Your task to perform on an android device: set an alarm Image 0: 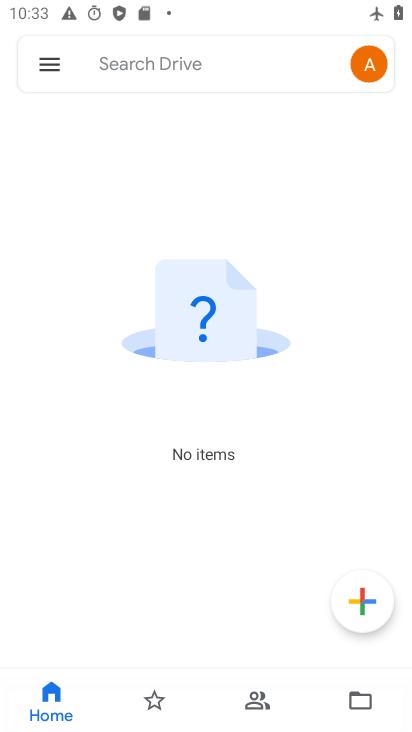
Step 0: press home button
Your task to perform on an android device: set an alarm Image 1: 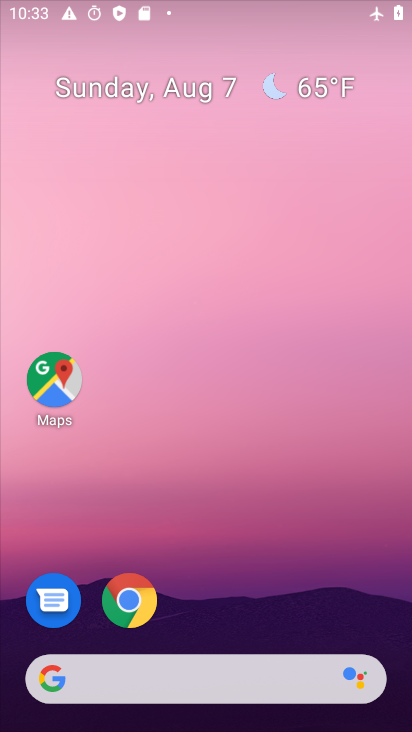
Step 1: drag from (225, 441) to (232, 23)
Your task to perform on an android device: set an alarm Image 2: 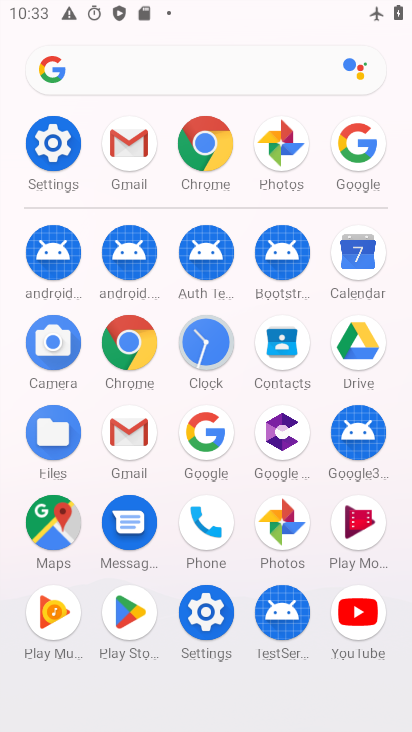
Step 2: click (209, 357)
Your task to perform on an android device: set an alarm Image 3: 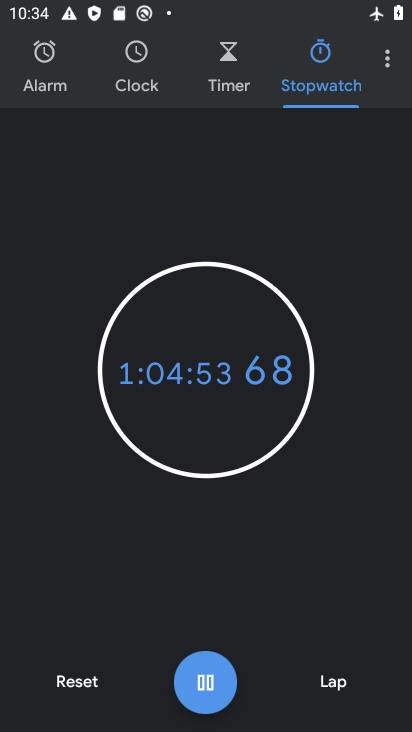
Step 3: click (70, 78)
Your task to perform on an android device: set an alarm Image 4: 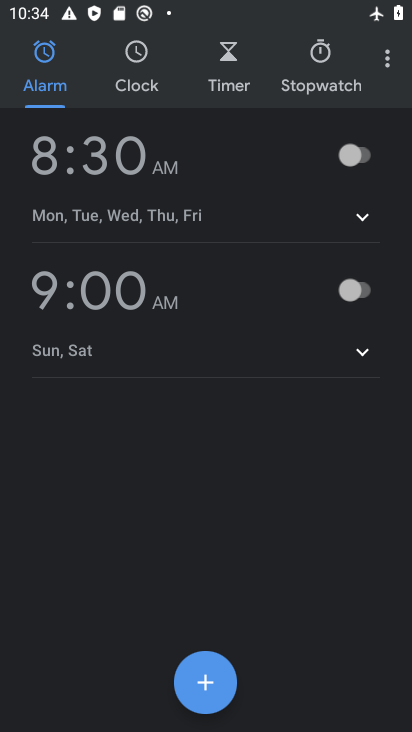
Step 4: click (211, 676)
Your task to perform on an android device: set an alarm Image 5: 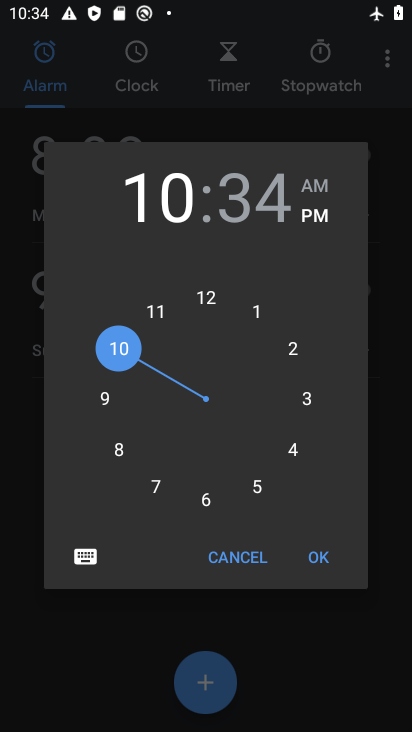
Step 5: click (313, 554)
Your task to perform on an android device: set an alarm Image 6: 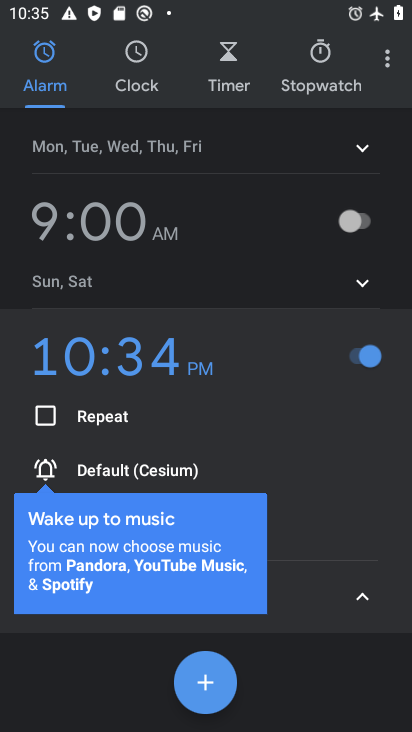
Step 6: task complete